Your task to perform on an android device: turn on the 12-hour format for clock Image 0: 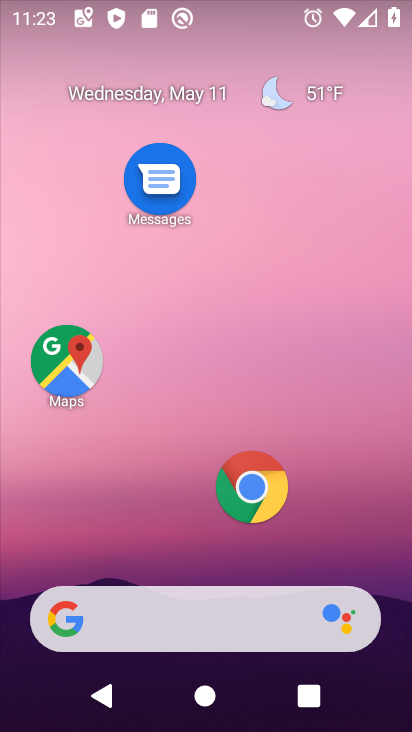
Step 0: drag from (122, 553) to (200, 182)
Your task to perform on an android device: turn on the 12-hour format for clock Image 1: 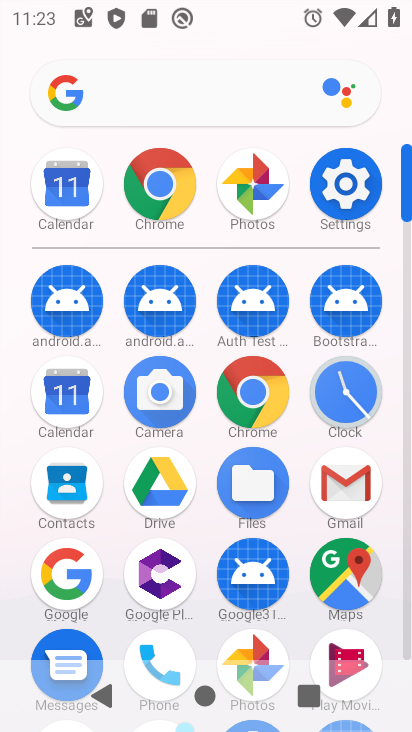
Step 1: click (361, 405)
Your task to perform on an android device: turn on the 12-hour format for clock Image 2: 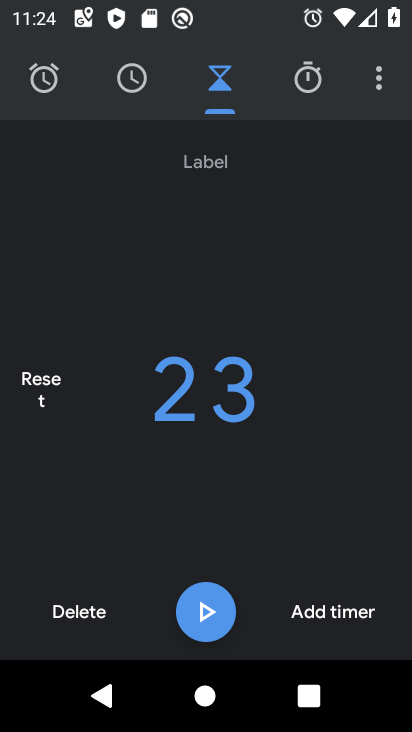
Step 2: click (384, 68)
Your task to perform on an android device: turn on the 12-hour format for clock Image 3: 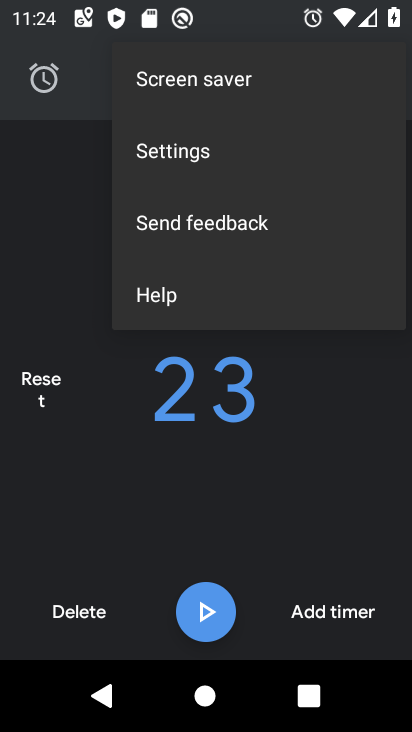
Step 3: click (273, 156)
Your task to perform on an android device: turn on the 12-hour format for clock Image 4: 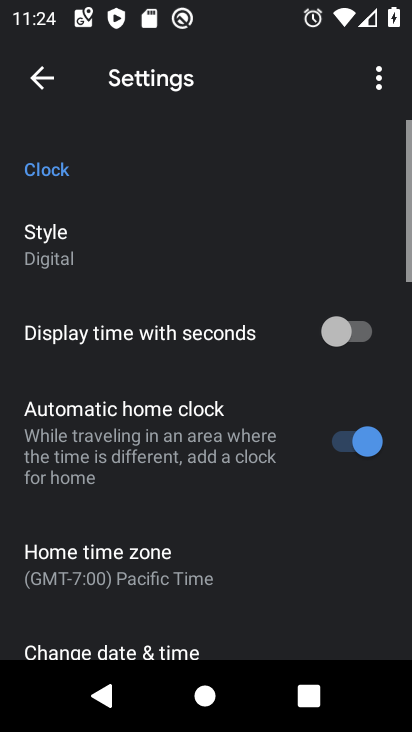
Step 4: drag from (240, 500) to (276, 230)
Your task to perform on an android device: turn on the 12-hour format for clock Image 5: 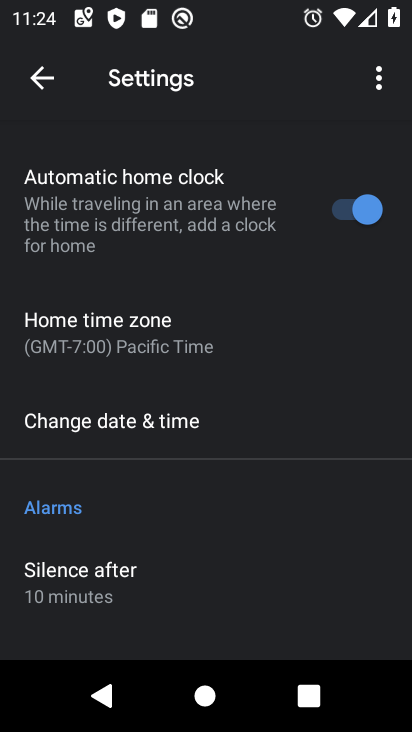
Step 5: click (202, 426)
Your task to perform on an android device: turn on the 12-hour format for clock Image 6: 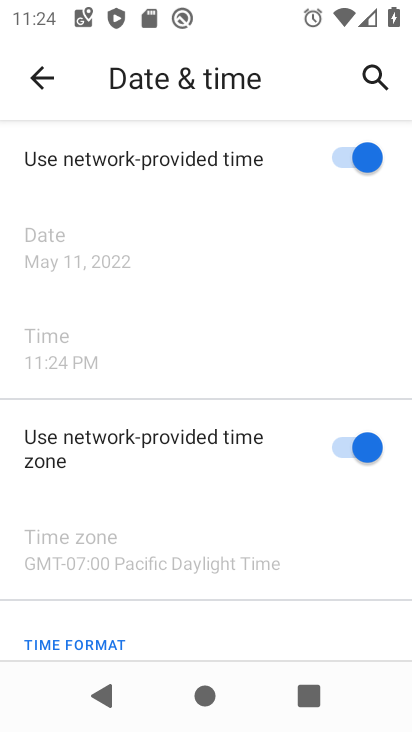
Step 6: task complete